Your task to perform on an android device: Open settings Image 0: 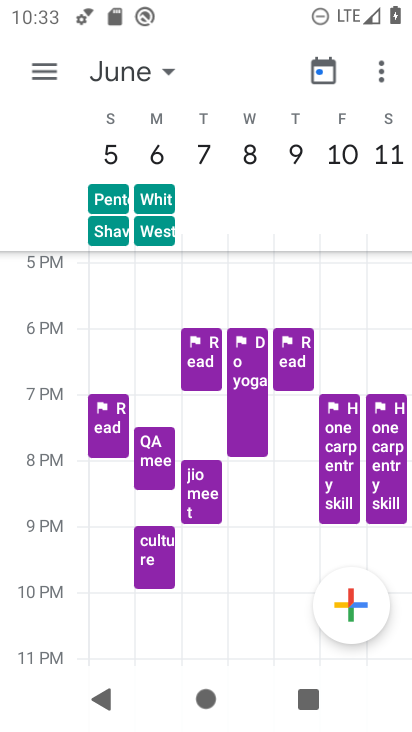
Step 0: press home button
Your task to perform on an android device: Open settings Image 1: 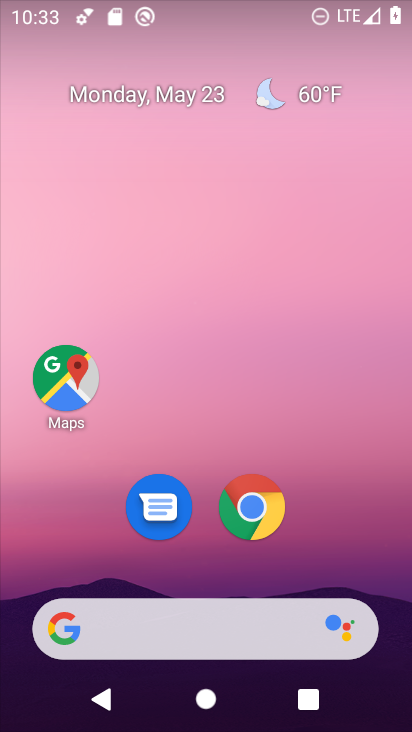
Step 1: drag from (330, 542) to (215, 151)
Your task to perform on an android device: Open settings Image 2: 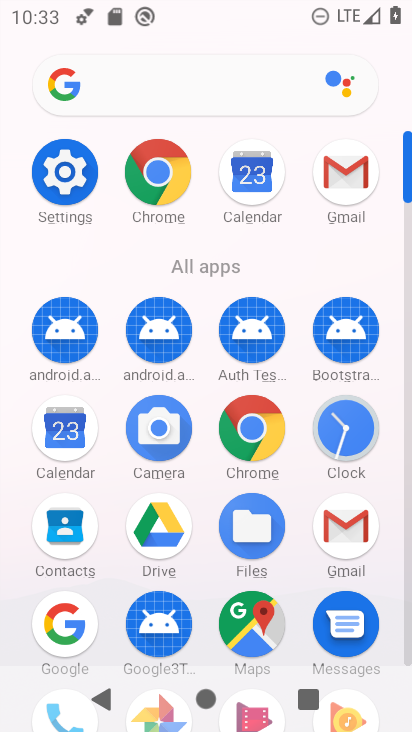
Step 2: click (68, 173)
Your task to perform on an android device: Open settings Image 3: 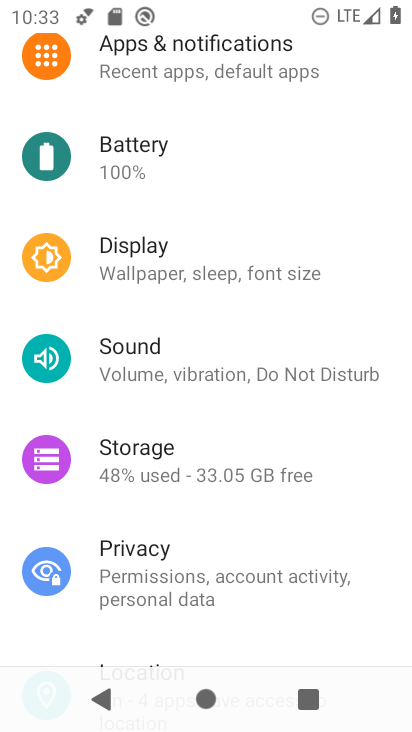
Step 3: task complete